Your task to perform on an android device: all mails in gmail Image 0: 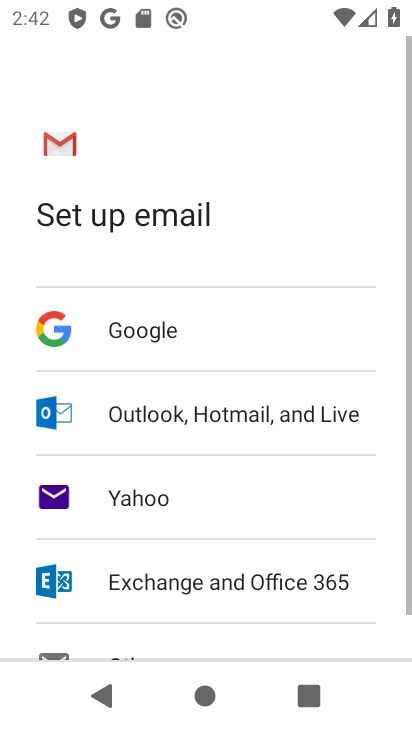
Step 0: press home button
Your task to perform on an android device: all mails in gmail Image 1: 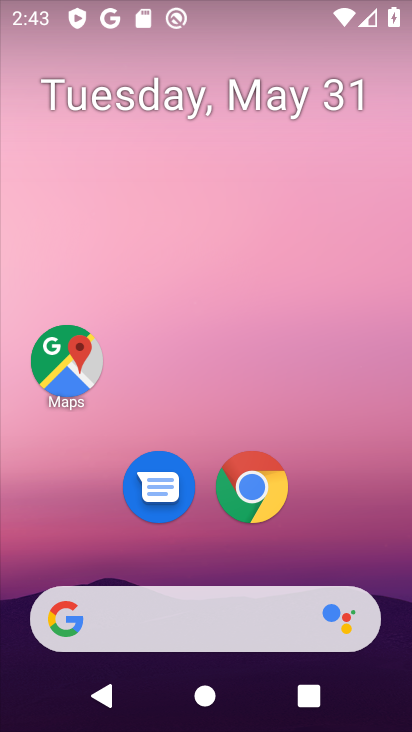
Step 1: drag from (66, 584) to (221, 83)
Your task to perform on an android device: all mails in gmail Image 2: 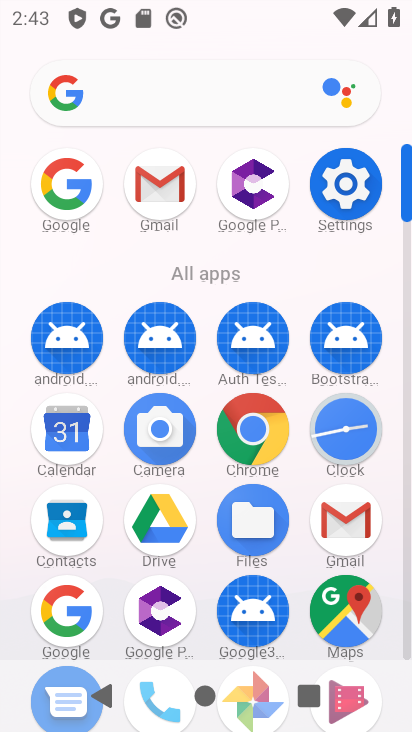
Step 2: click (360, 527)
Your task to perform on an android device: all mails in gmail Image 3: 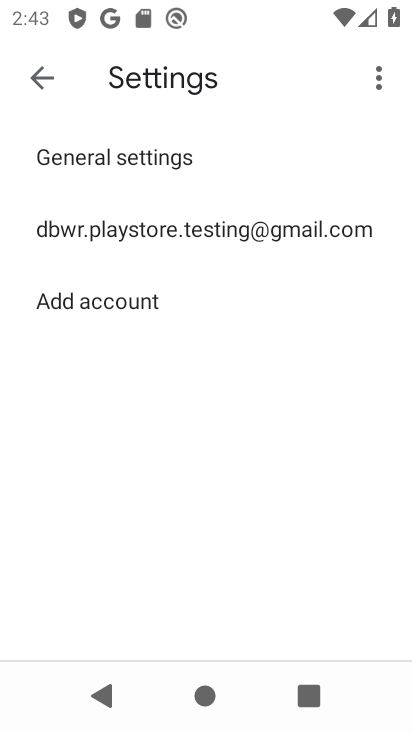
Step 3: click (57, 86)
Your task to perform on an android device: all mails in gmail Image 4: 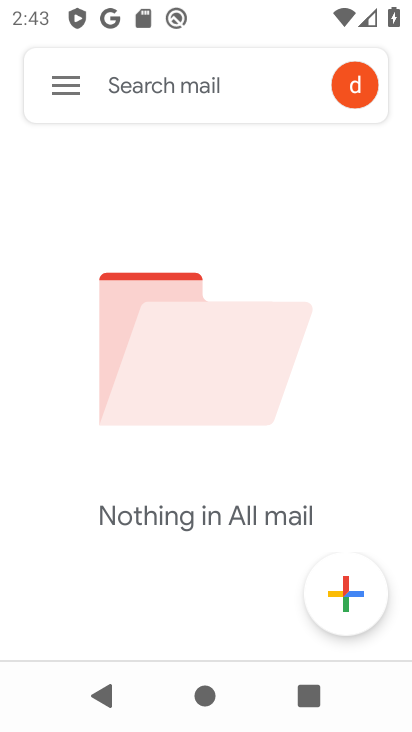
Step 4: click (67, 89)
Your task to perform on an android device: all mails in gmail Image 5: 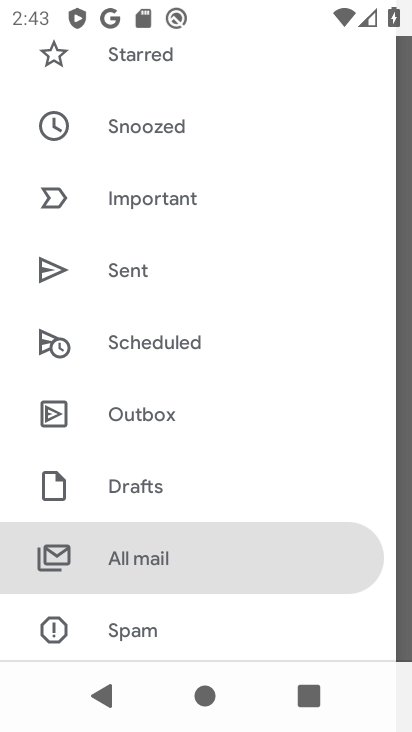
Step 5: task complete